Your task to perform on an android device: add a label to a message in the gmail app Image 0: 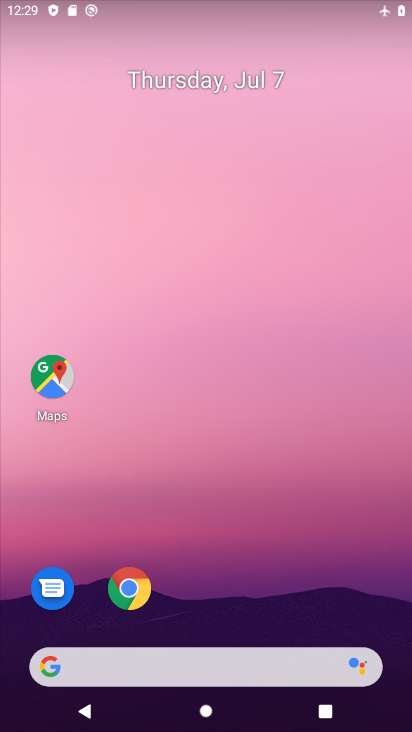
Step 0: drag from (164, 627) to (227, 61)
Your task to perform on an android device: add a label to a message in the gmail app Image 1: 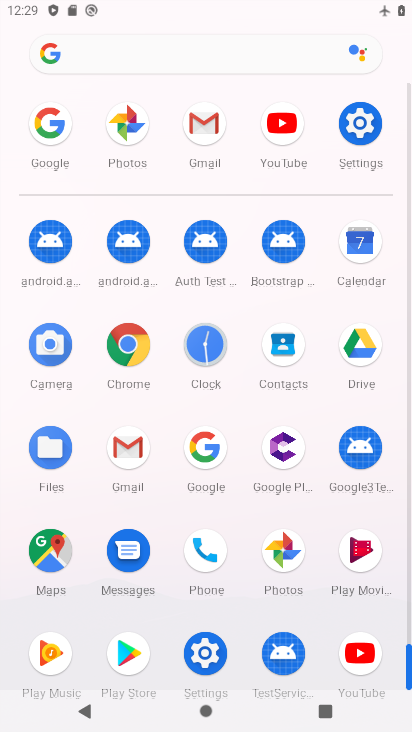
Step 1: click (122, 453)
Your task to perform on an android device: add a label to a message in the gmail app Image 2: 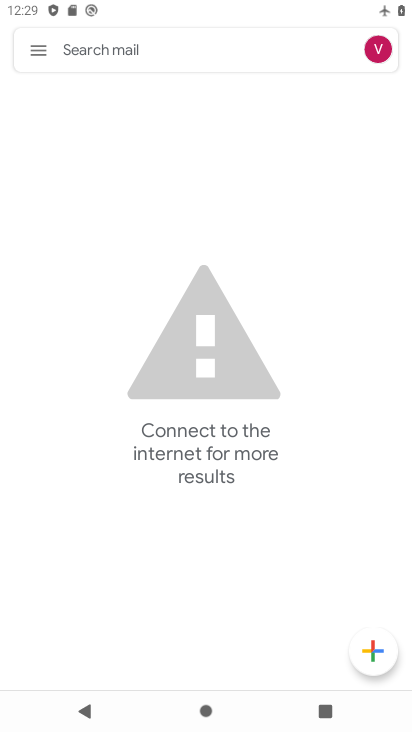
Step 2: drag from (84, 530) to (136, 318)
Your task to perform on an android device: add a label to a message in the gmail app Image 3: 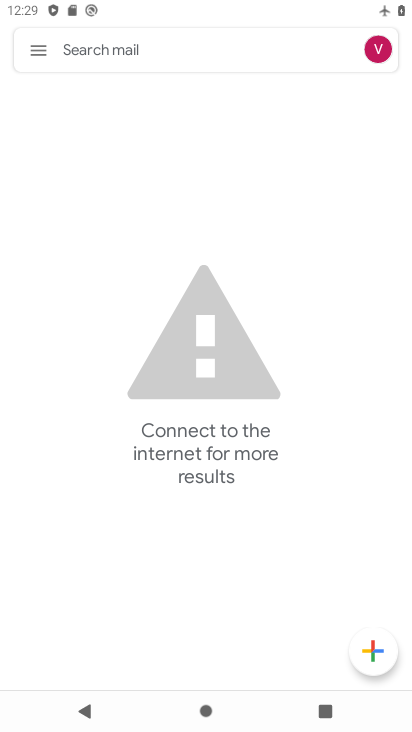
Step 3: drag from (192, 607) to (248, 402)
Your task to perform on an android device: add a label to a message in the gmail app Image 4: 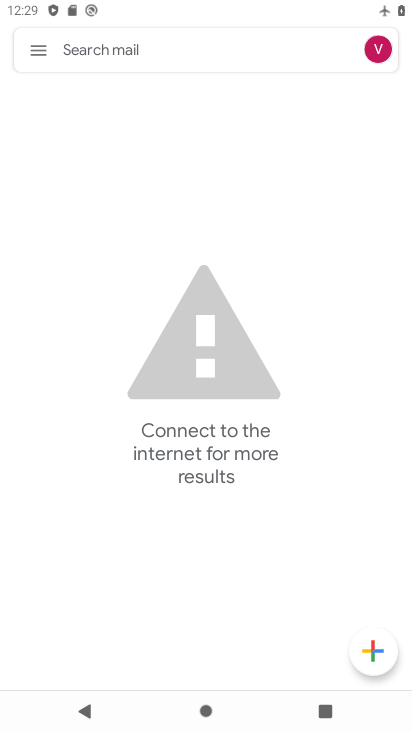
Step 4: click (171, 288)
Your task to perform on an android device: add a label to a message in the gmail app Image 5: 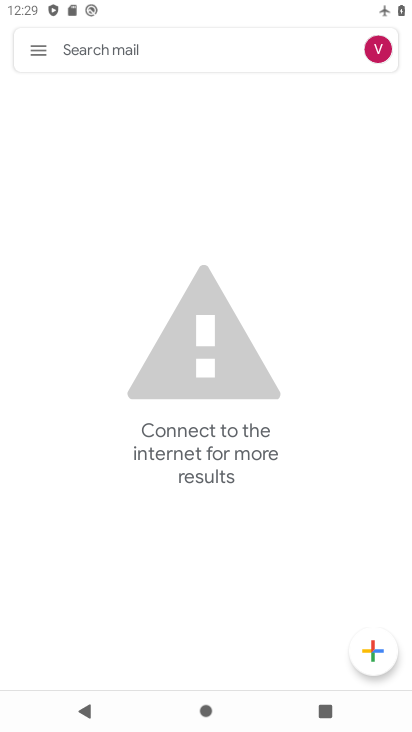
Step 5: task complete